Your task to perform on an android device: Do I have any events this weekend? Image 0: 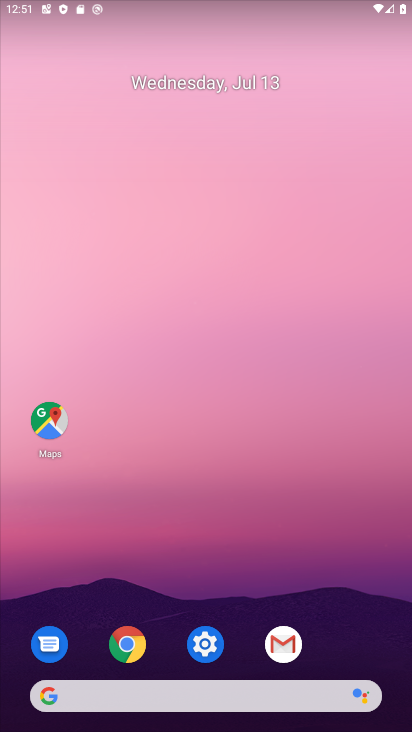
Step 0: press home button
Your task to perform on an android device: Do I have any events this weekend? Image 1: 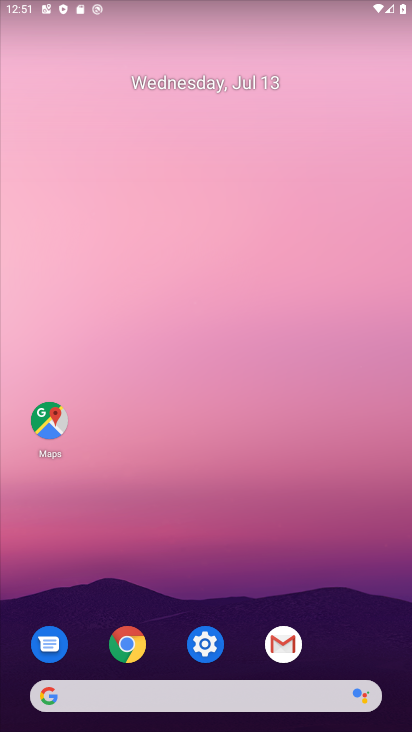
Step 1: drag from (183, 706) to (287, 159)
Your task to perform on an android device: Do I have any events this weekend? Image 2: 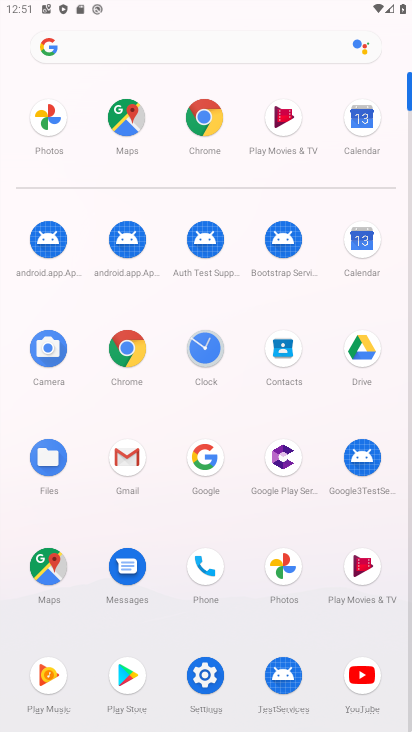
Step 2: click (357, 251)
Your task to perform on an android device: Do I have any events this weekend? Image 3: 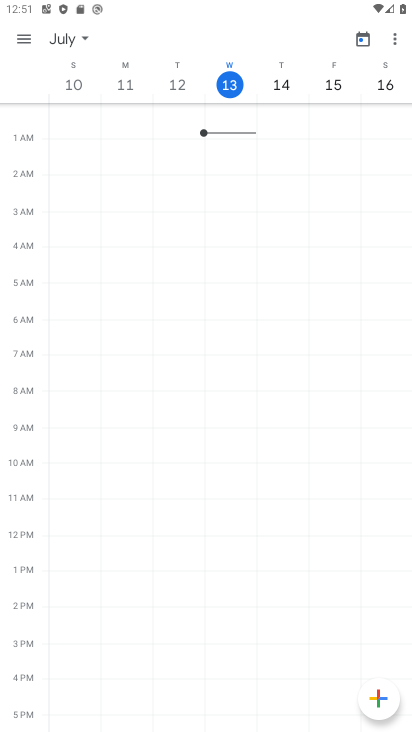
Step 3: click (10, 49)
Your task to perform on an android device: Do I have any events this weekend? Image 4: 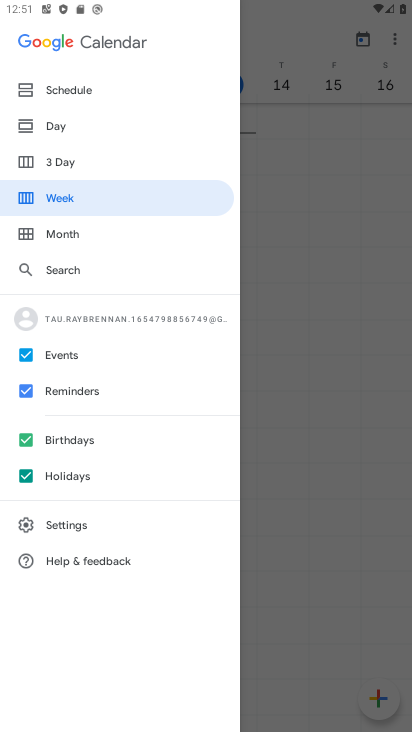
Step 4: click (85, 204)
Your task to perform on an android device: Do I have any events this weekend? Image 5: 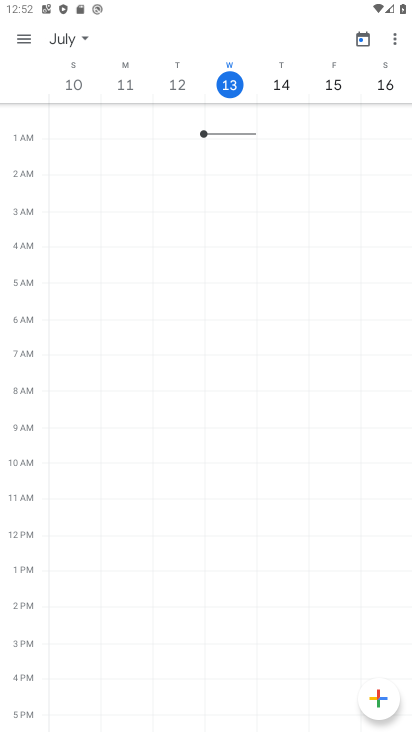
Step 5: task complete